Your task to perform on an android device: What is the news today? Image 0: 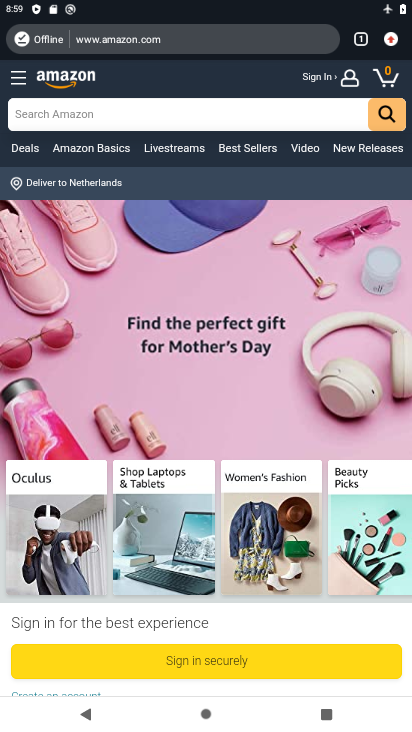
Step 0: press home button
Your task to perform on an android device: What is the news today? Image 1: 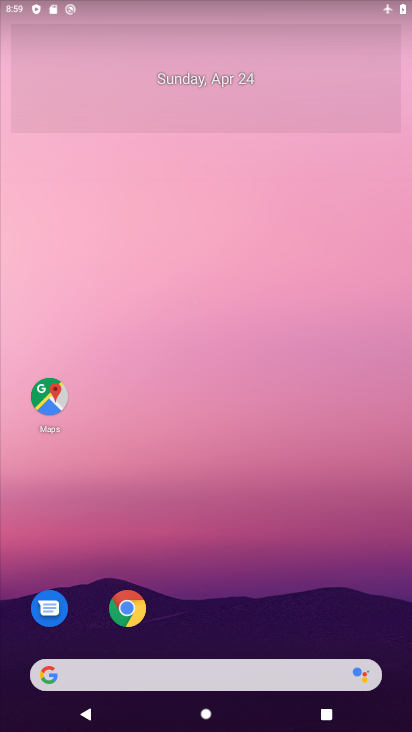
Step 1: drag from (204, 616) to (212, 165)
Your task to perform on an android device: What is the news today? Image 2: 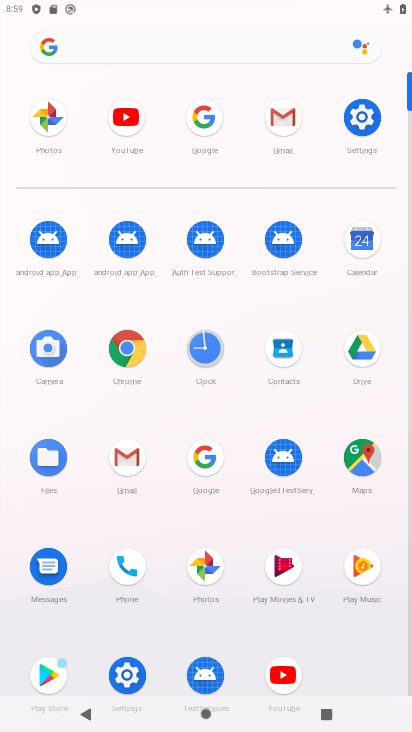
Step 2: click (208, 472)
Your task to perform on an android device: What is the news today? Image 3: 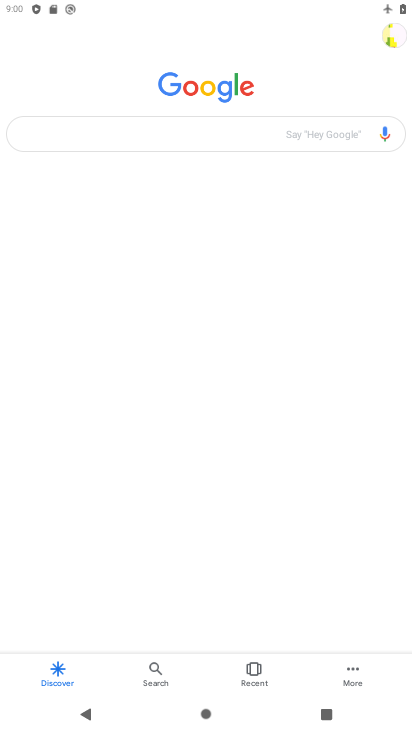
Step 3: task complete